Your task to perform on an android device: read, delete, or share a saved page in the chrome app Image 0: 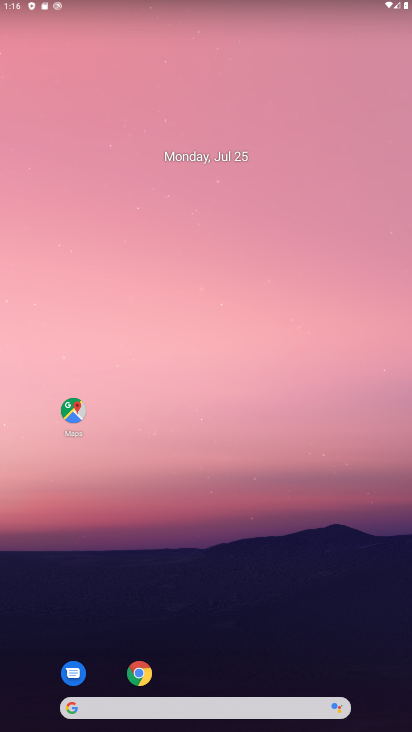
Step 0: click (135, 676)
Your task to perform on an android device: read, delete, or share a saved page in the chrome app Image 1: 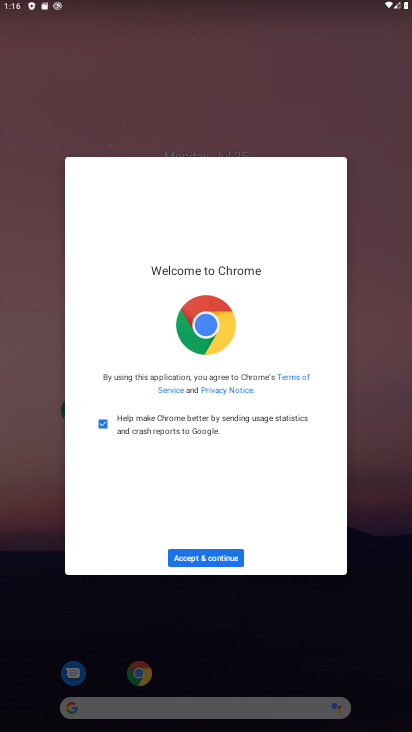
Step 1: click (180, 562)
Your task to perform on an android device: read, delete, or share a saved page in the chrome app Image 2: 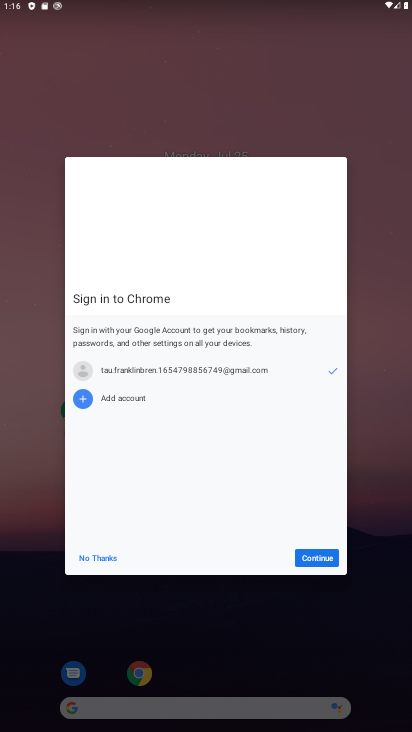
Step 2: click (308, 554)
Your task to perform on an android device: read, delete, or share a saved page in the chrome app Image 3: 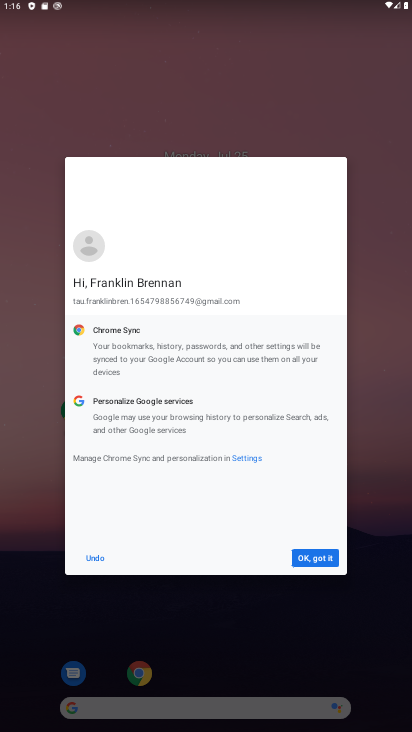
Step 3: click (308, 554)
Your task to perform on an android device: read, delete, or share a saved page in the chrome app Image 4: 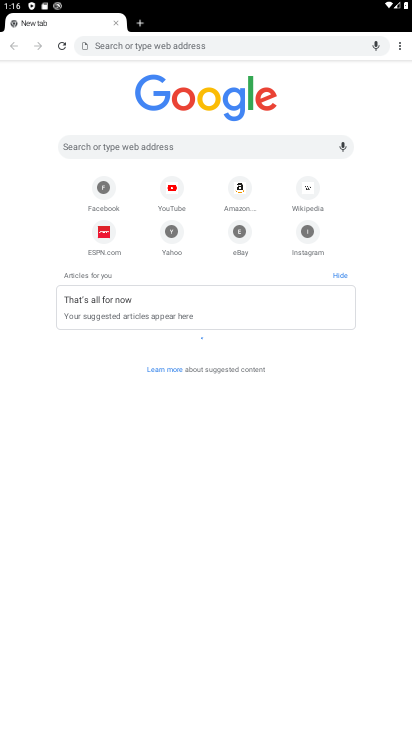
Step 4: click (407, 47)
Your task to perform on an android device: read, delete, or share a saved page in the chrome app Image 5: 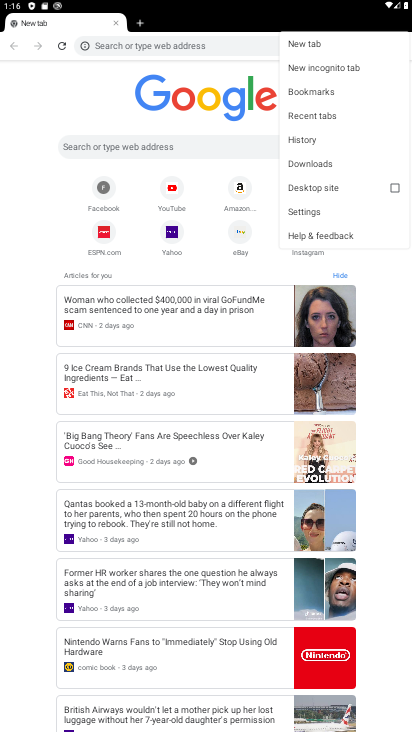
Step 5: click (308, 170)
Your task to perform on an android device: read, delete, or share a saved page in the chrome app Image 6: 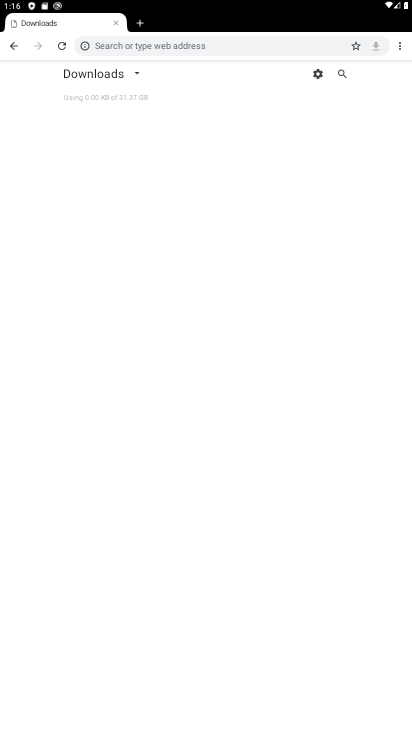
Step 6: task complete